Your task to perform on an android device: See recent photos Image 0: 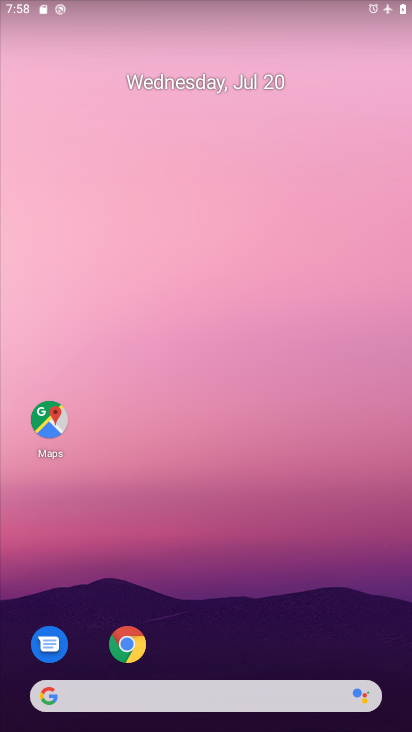
Step 0: drag from (173, 672) to (200, 273)
Your task to perform on an android device: See recent photos Image 1: 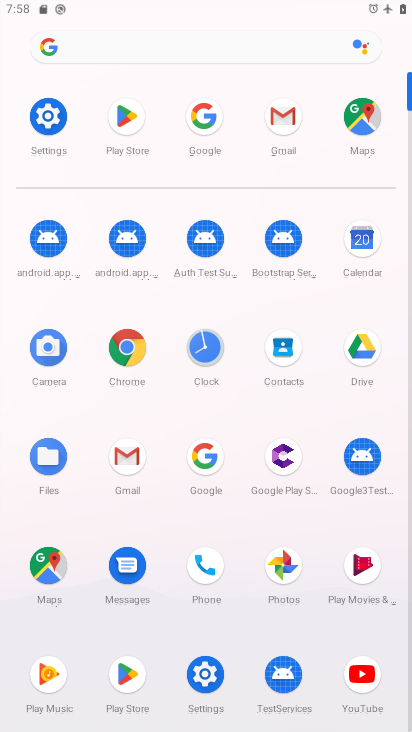
Step 1: click (290, 578)
Your task to perform on an android device: See recent photos Image 2: 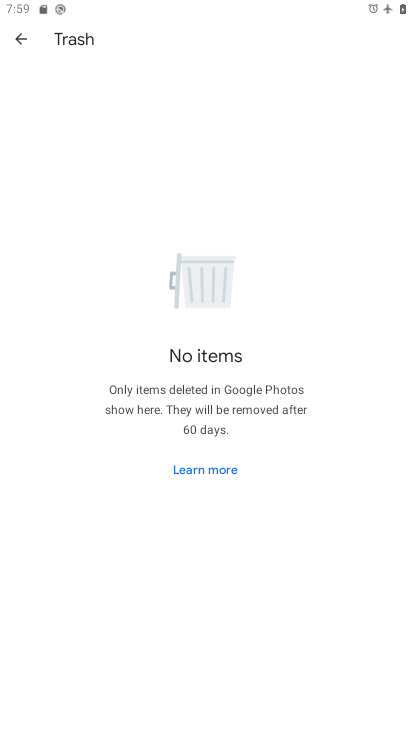
Step 2: click (16, 38)
Your task to perform on an android device: See recent photos Image 3: 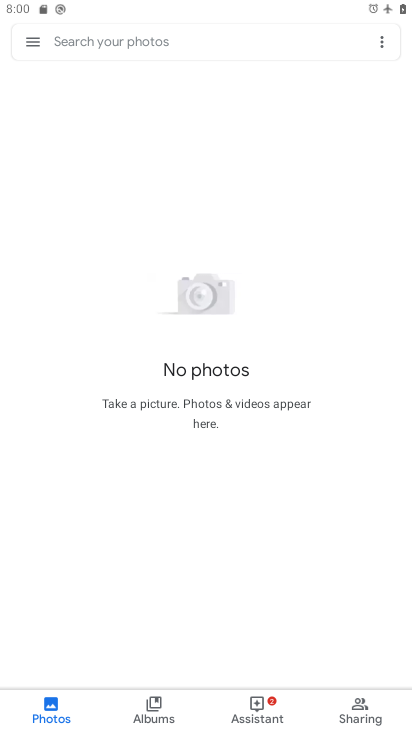
Step 3: task complete